Your task to perform on an android device: open app "Paramount+ | Peak Streaming" (install if not already installed) and enter user name: "fostered@yahoo.com" and password: "strong" Image 0: 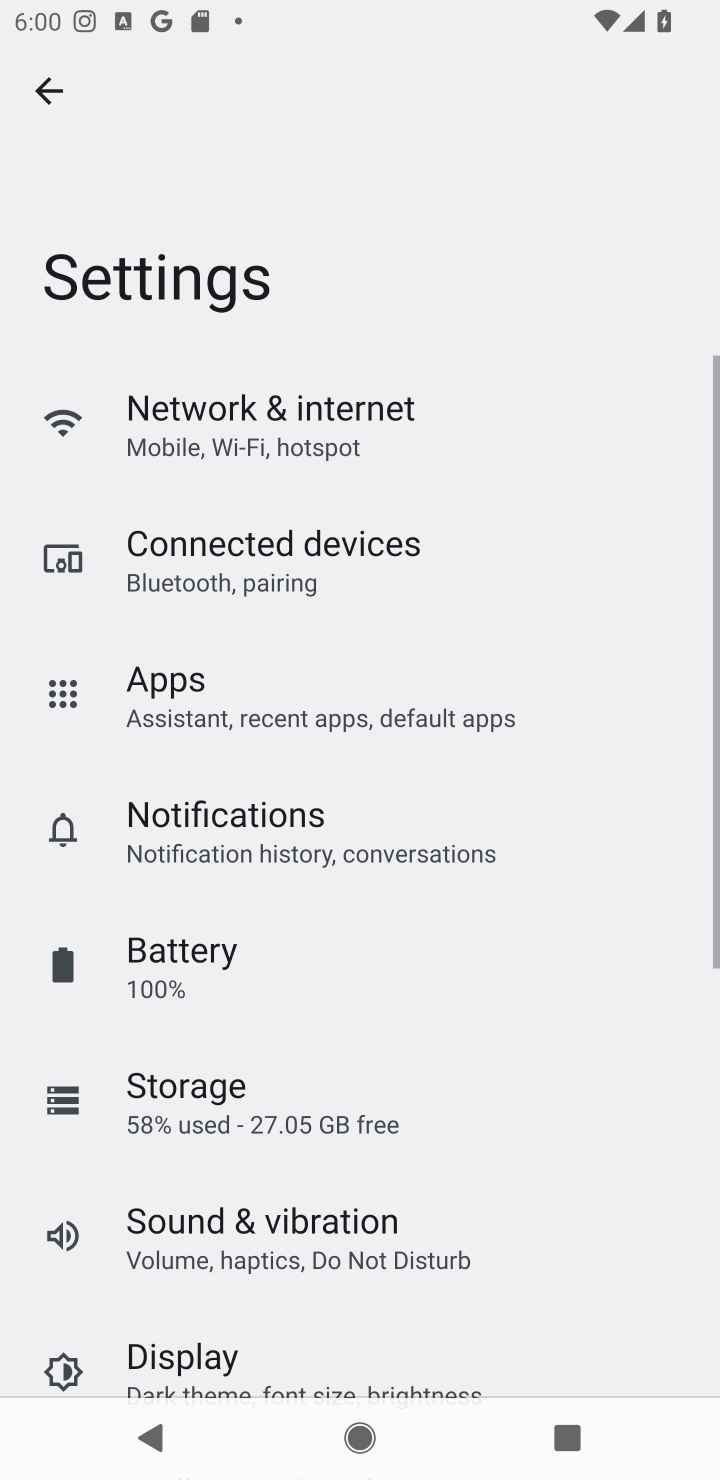
Step 0: press home button
Your task to perform on an android device: open app "Paramount+ | Peak Streaming" (install if not already installed) and enter user name: "fostered@yahoo.com" and password: "strong" Image 1: 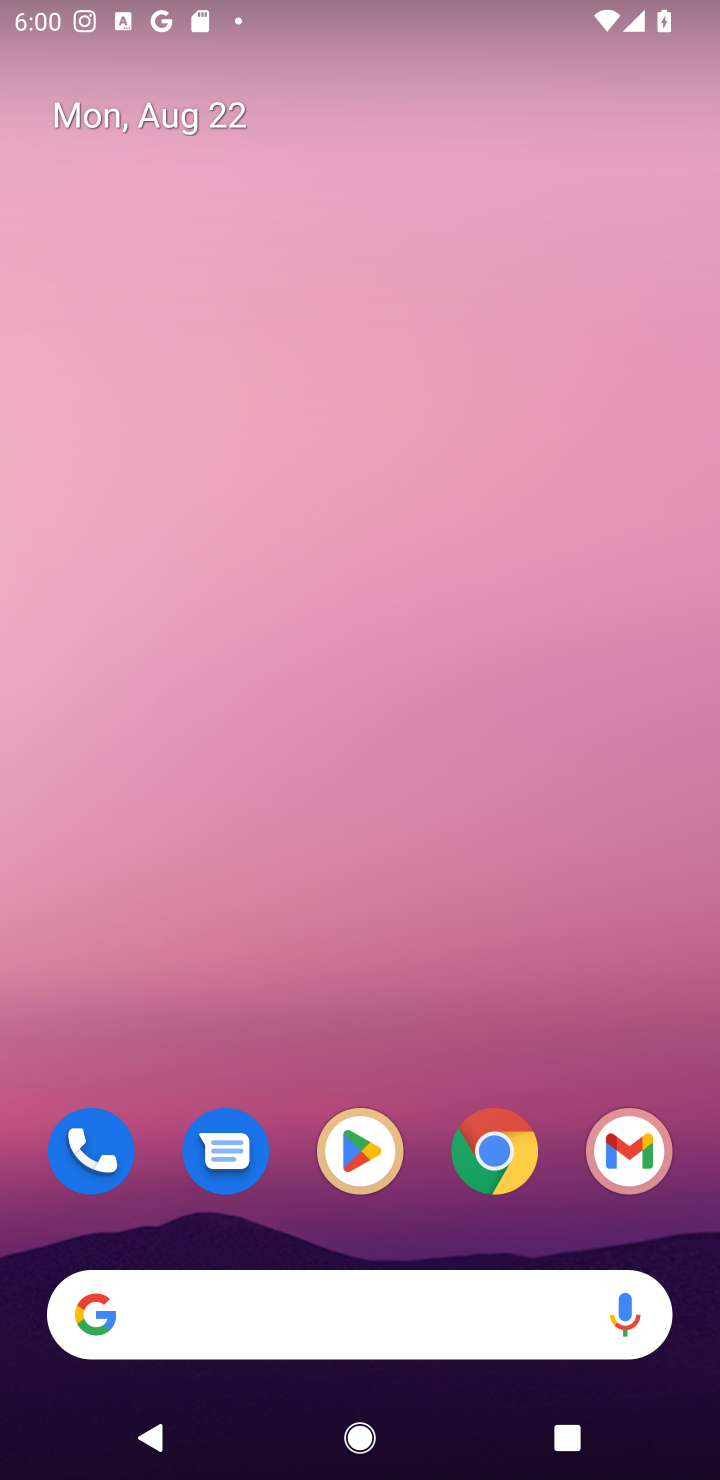
Step 1: click (366, 1154)
Your task to perform on an android device: open app "Paramount+ | Peak Streaming" (install if not already installed) and enter user name: "fostered@yahoo.com" and password: "strong" Image 2: 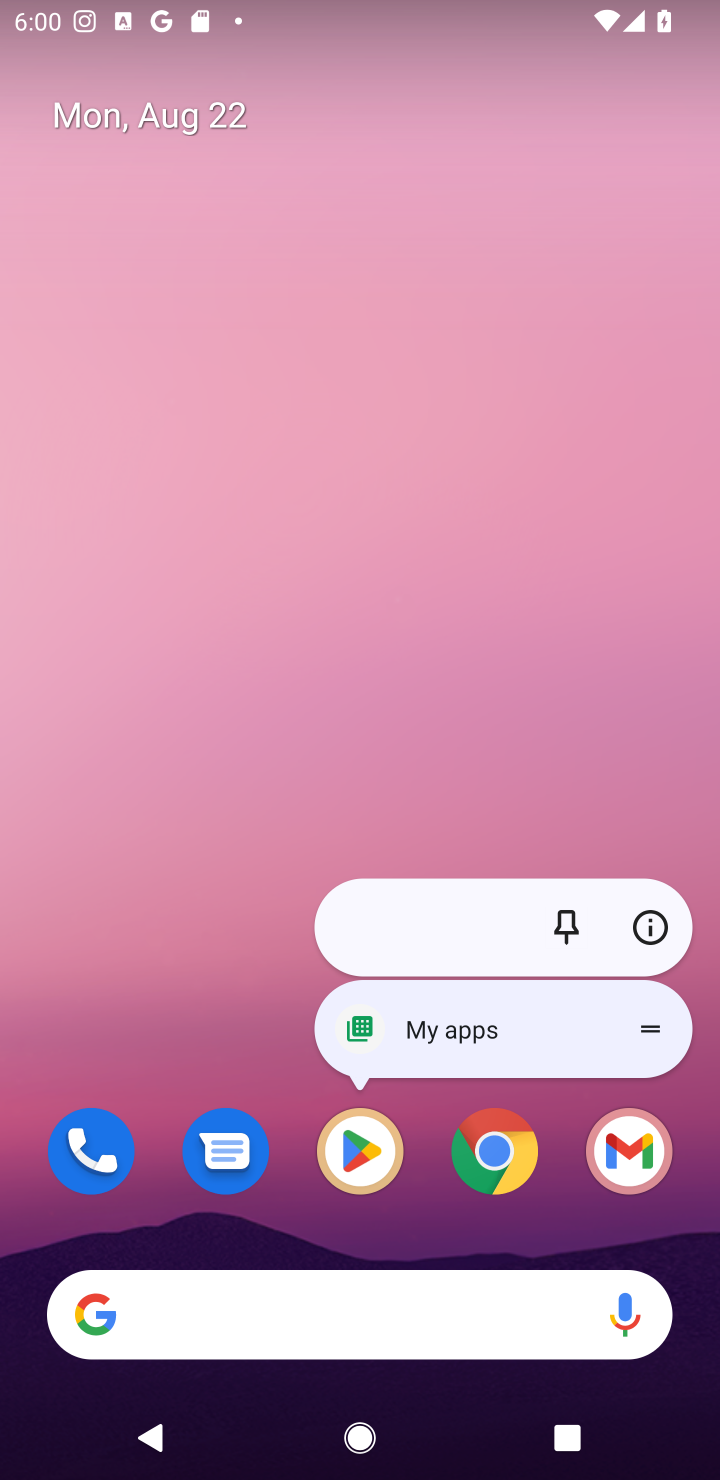
Step 2: click (368, 1156)
Your task to perform on an android device: open app "Paramount+ | Peak Streaming" (install if not already installed) and enter user name: "fostered@yahoo.com" and password: "strong" Image 3: 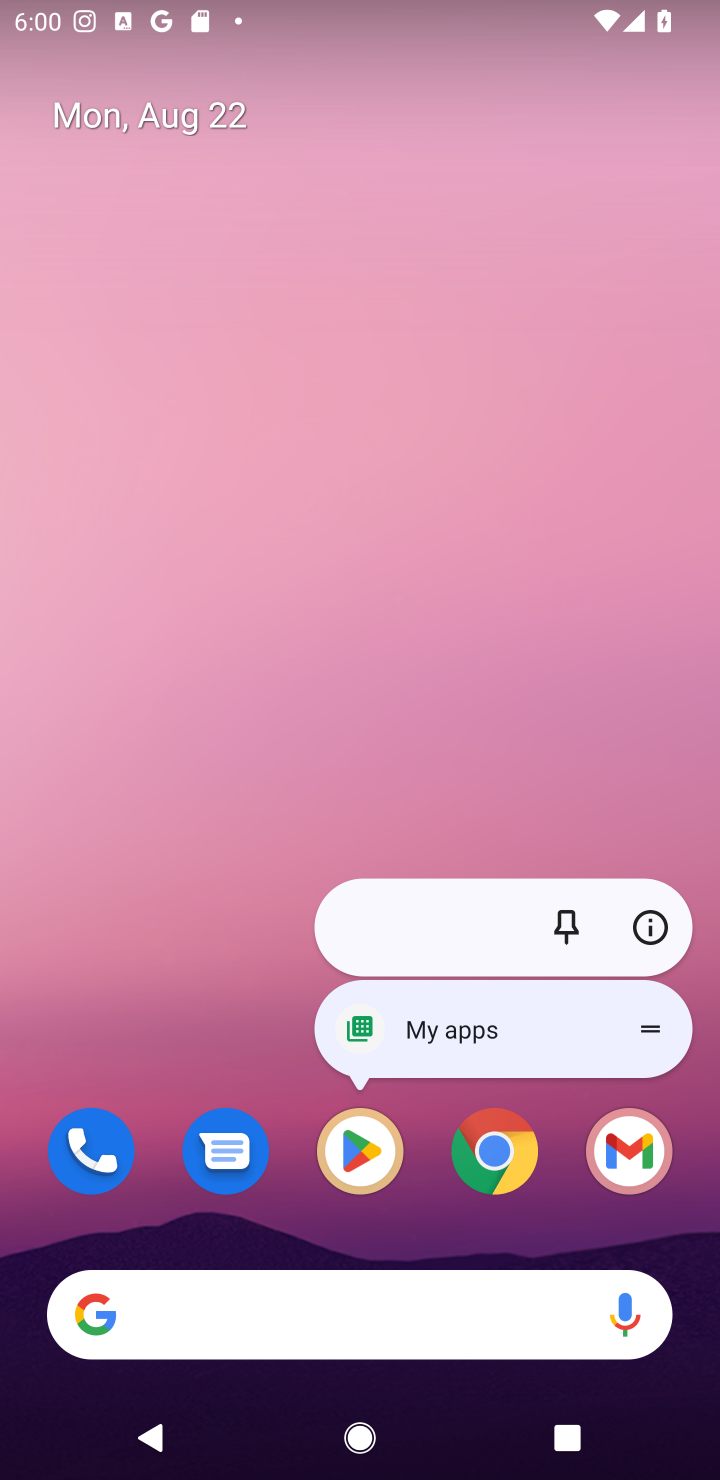
Step 3: click (368, 1156)
Your task to perform on an android device: open app "Paramount+ | Peak Streaming" (install if not already installed) and enter user name: "fostered@yahoo.com" and password: "strong" Image 4: 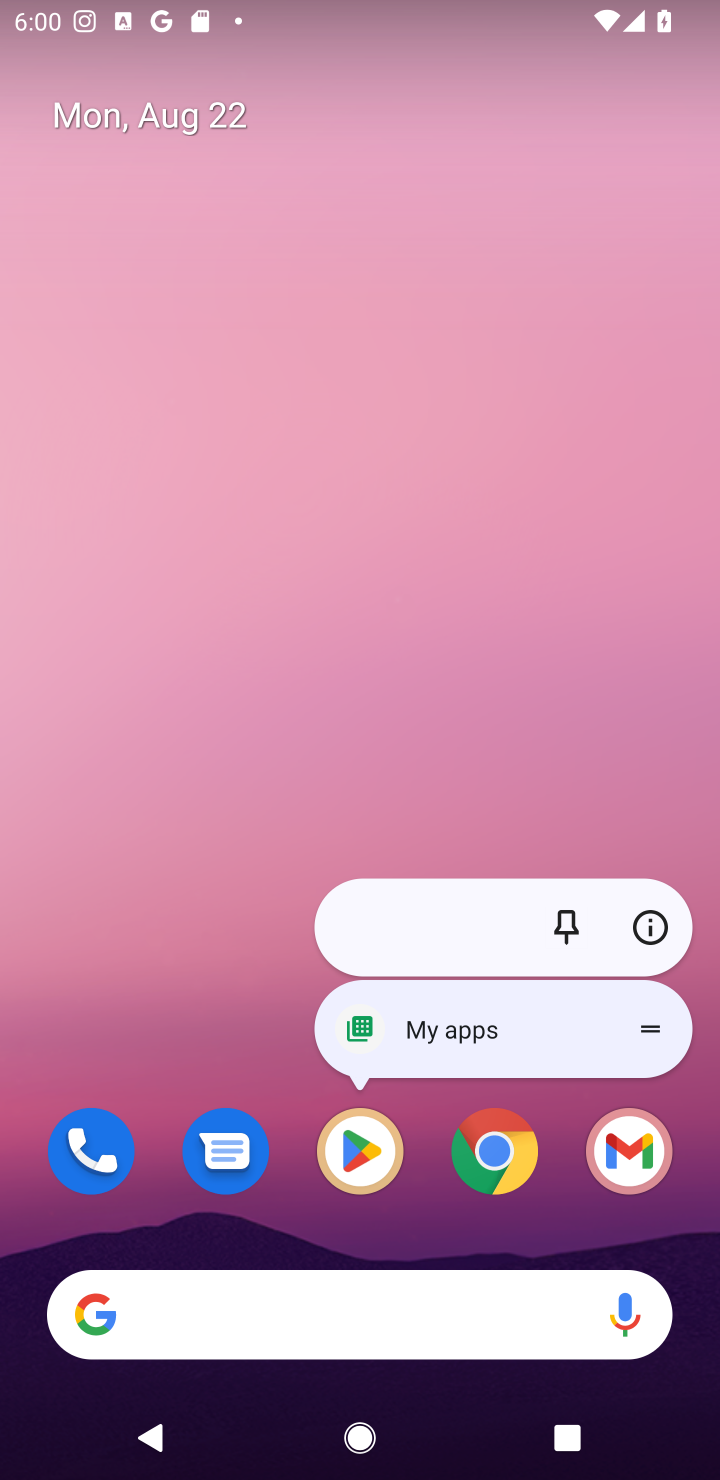
Step 4: click (356, 1156)
Your task to perform on an android device: open app "Paramount+ | Peak Streaming" (install if not already installed) and enter user name: "fostered@yahoo.com" and password: "strong" Image 5: 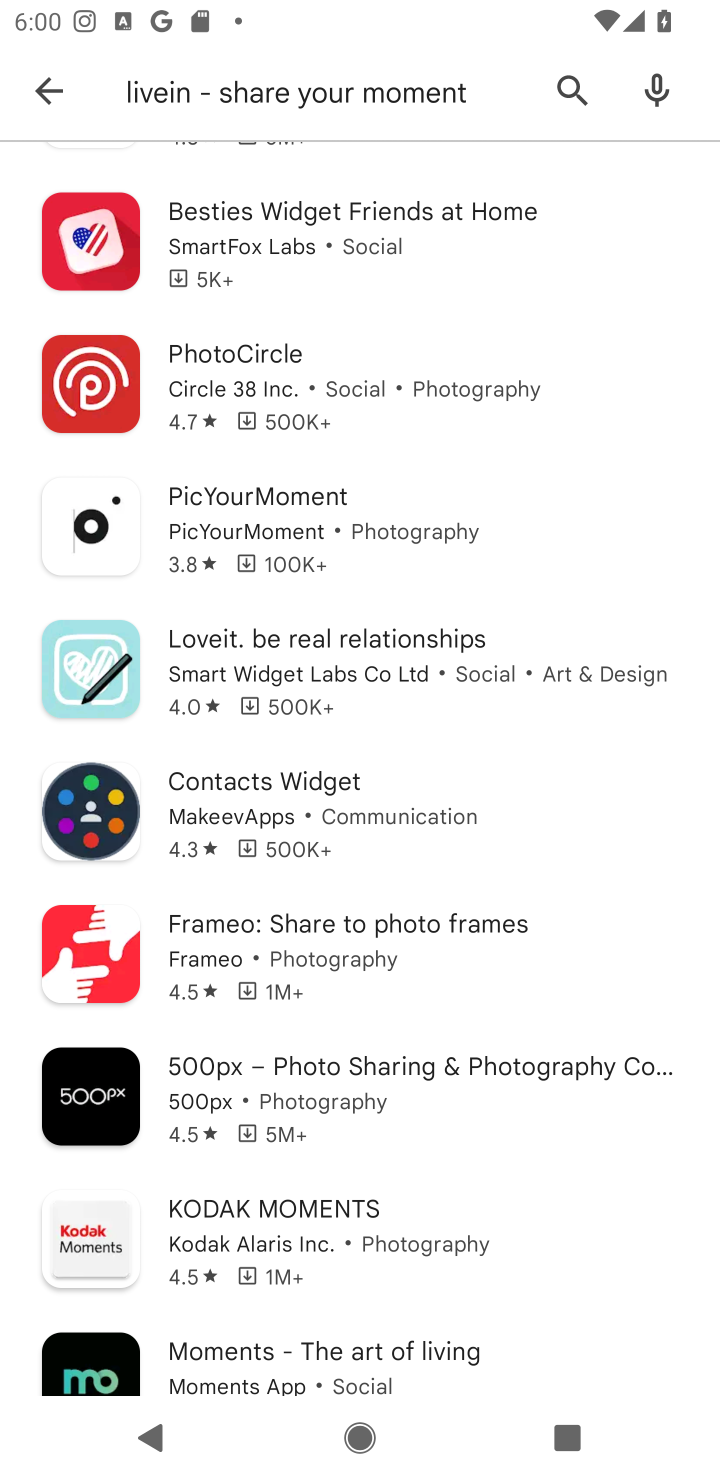
Step 5: click (574, 91)
Your task to perform on an android device: open app "Paramount+ | Peak Streaming" (install if not already installed) and enter user name: "fostered@yahoo.com" and password: "strong" Image 6: 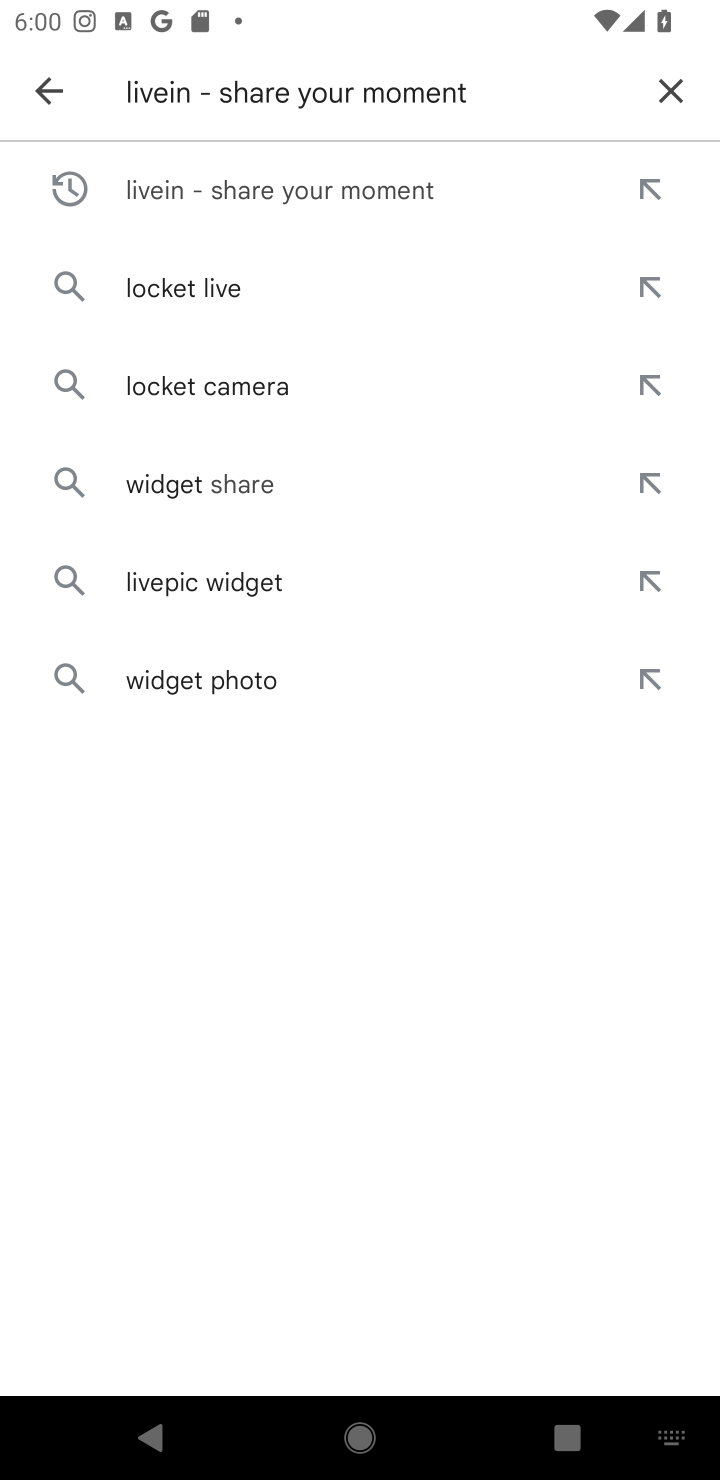
Step 6: click (655, 91)
Your task to perform on an android device: open app "Paramount+ | Peak Streaming" (install if not already installed) and enter user name: "fostered@yahoo.com" and password: "strong" Image 7: 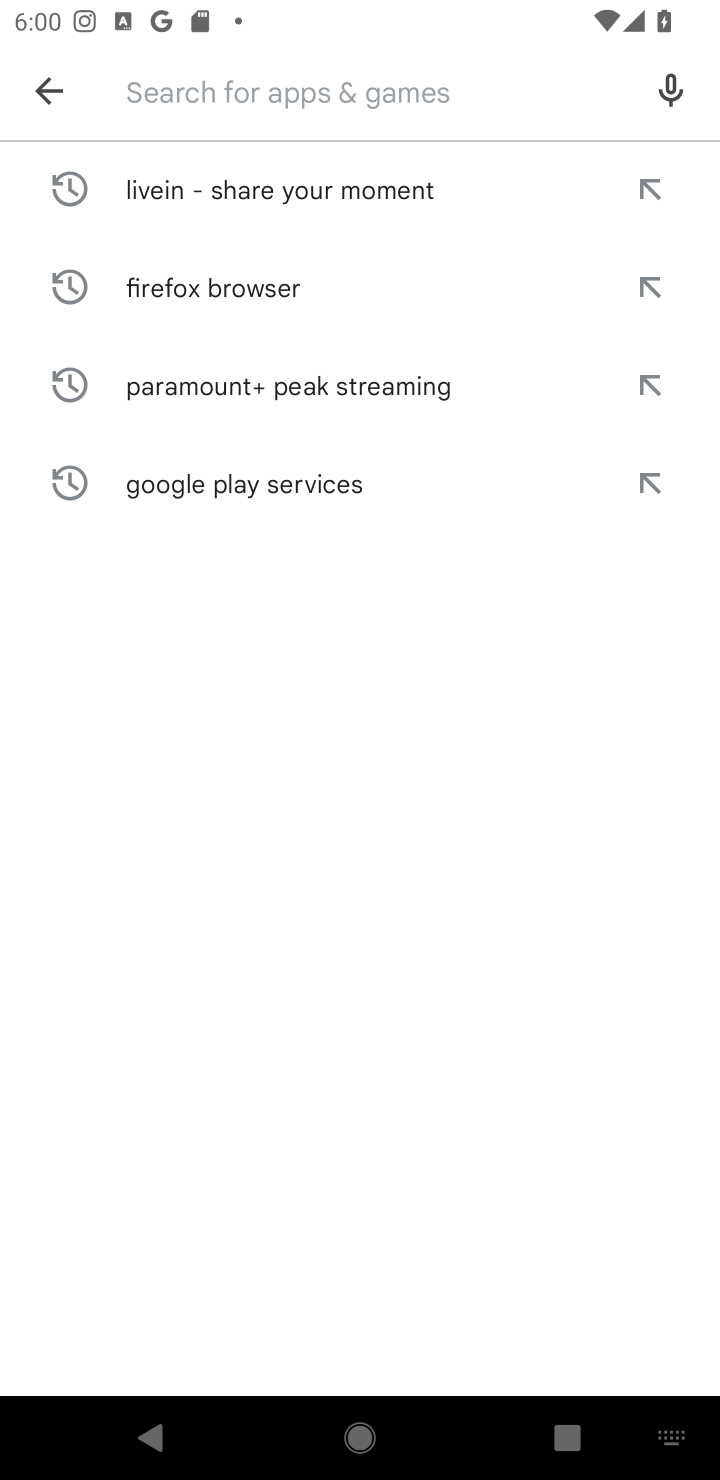
Step 7: type "Paramount+ | Peak Streaming"
Your task to perform on an android device: open app "Paramount+ | Peak Streaming" (install if not already installed) and enter user name: "fostered@yahoo.com" and password: "strong" Image 8: 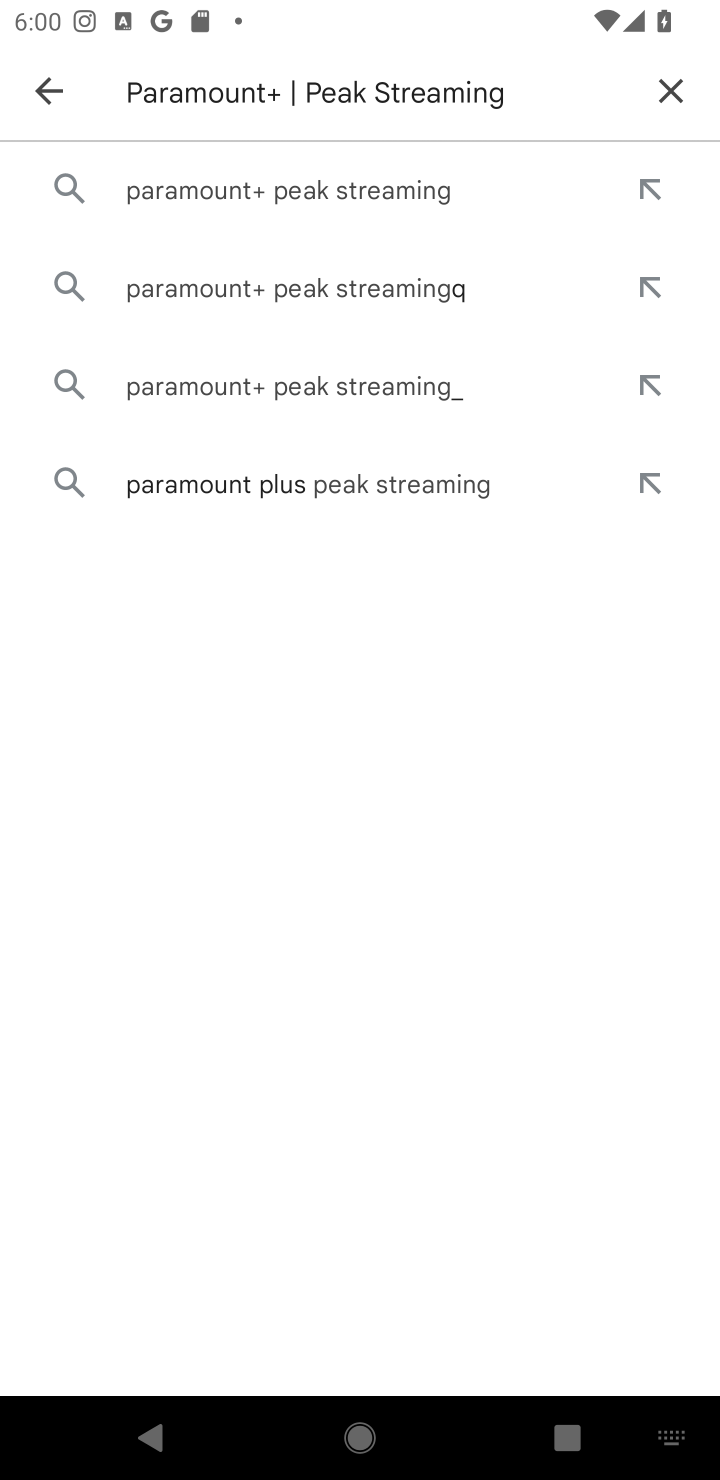
Step 8: click (334, 185)
Your task to perform on an android device: open app "Paramount+ | Peak Streaming" (install if not already installed) and enter user name: "fostered@yahoo.com" and password: "strong" Image 9: 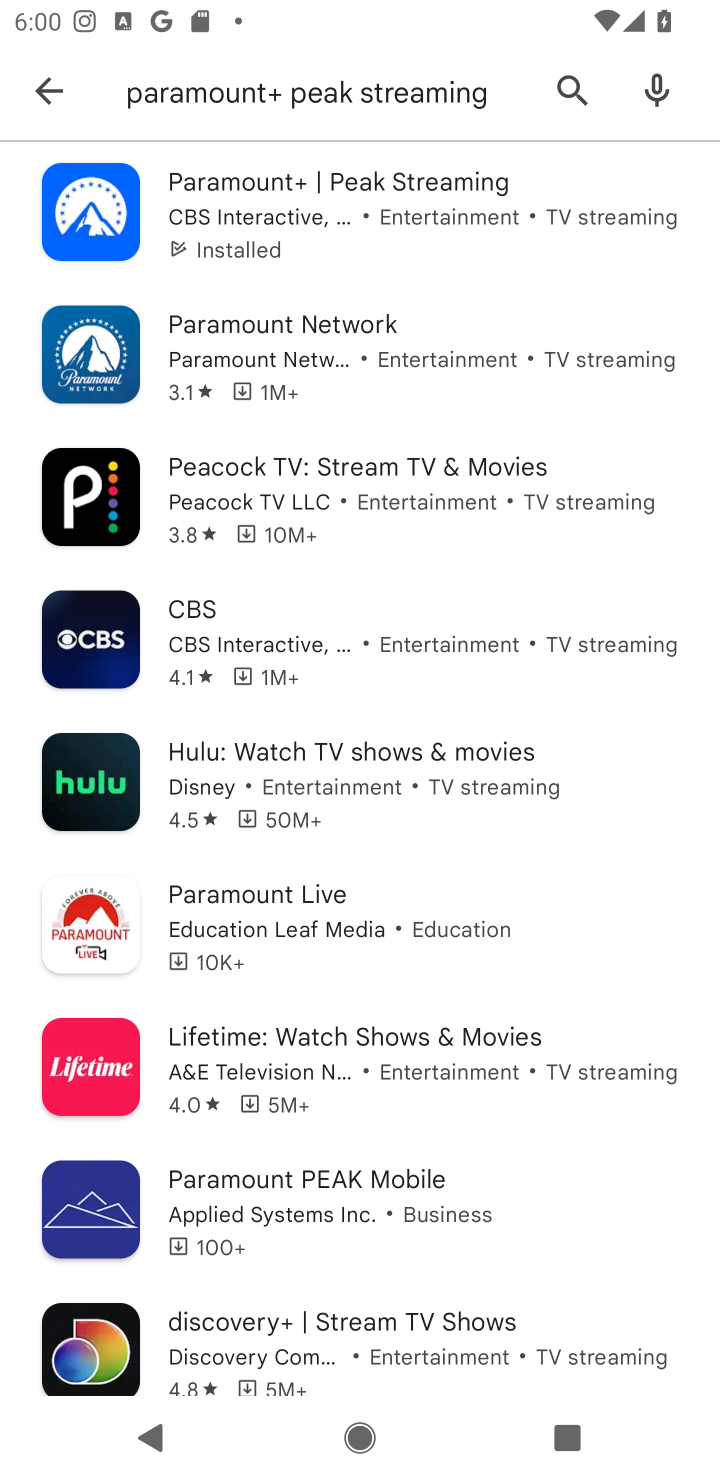
Step 9: click (320, 209)
Your task to perform on an android device: open app "Paramount+ | Peak Streaming" (install if not already installed) and enter user name: "fostered@yahoo.com" and password: "strong" Image 10: 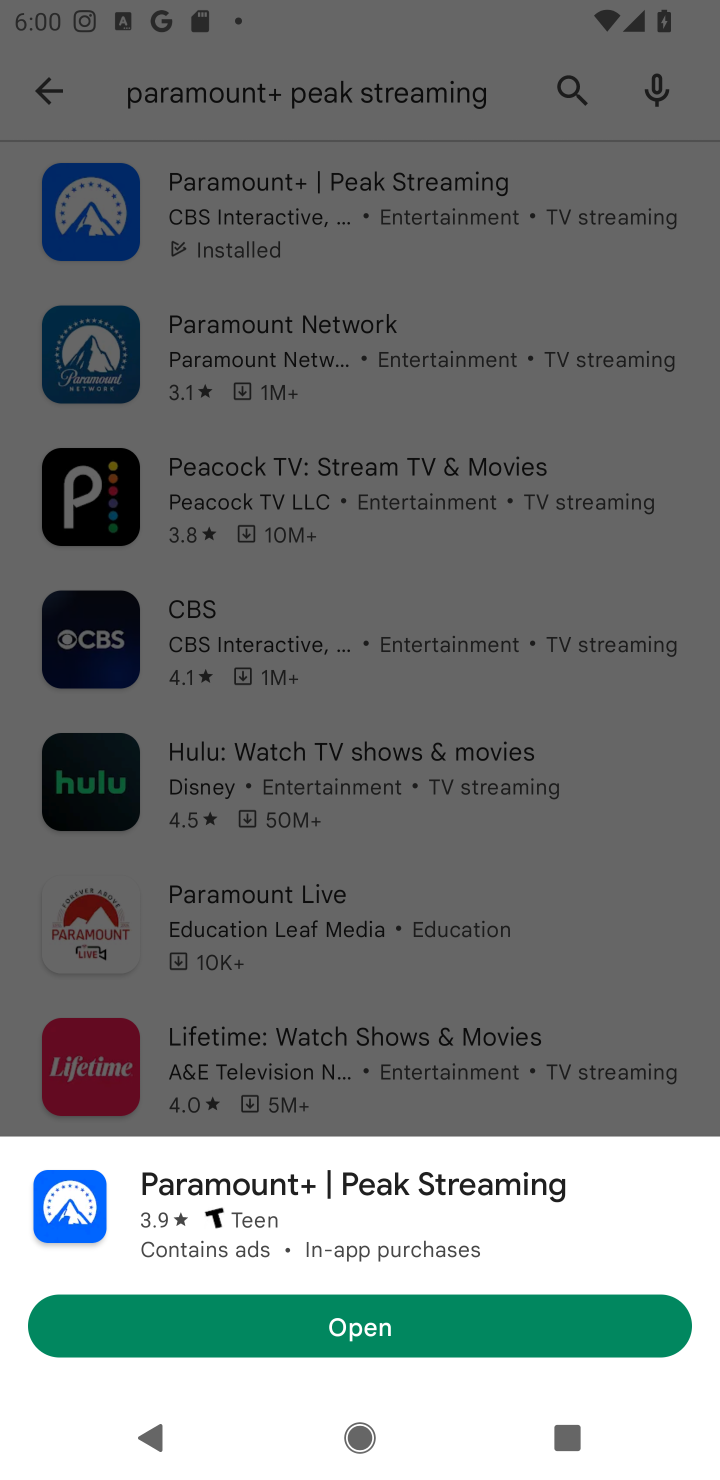
Step 10: click (387, 1332)
Your task to perform on an android device: open app "Paramount+ | Peak Streaming" (install if not already installed) and enter user name: "fostered@yahoo.com" and password: "strong" Image 11: 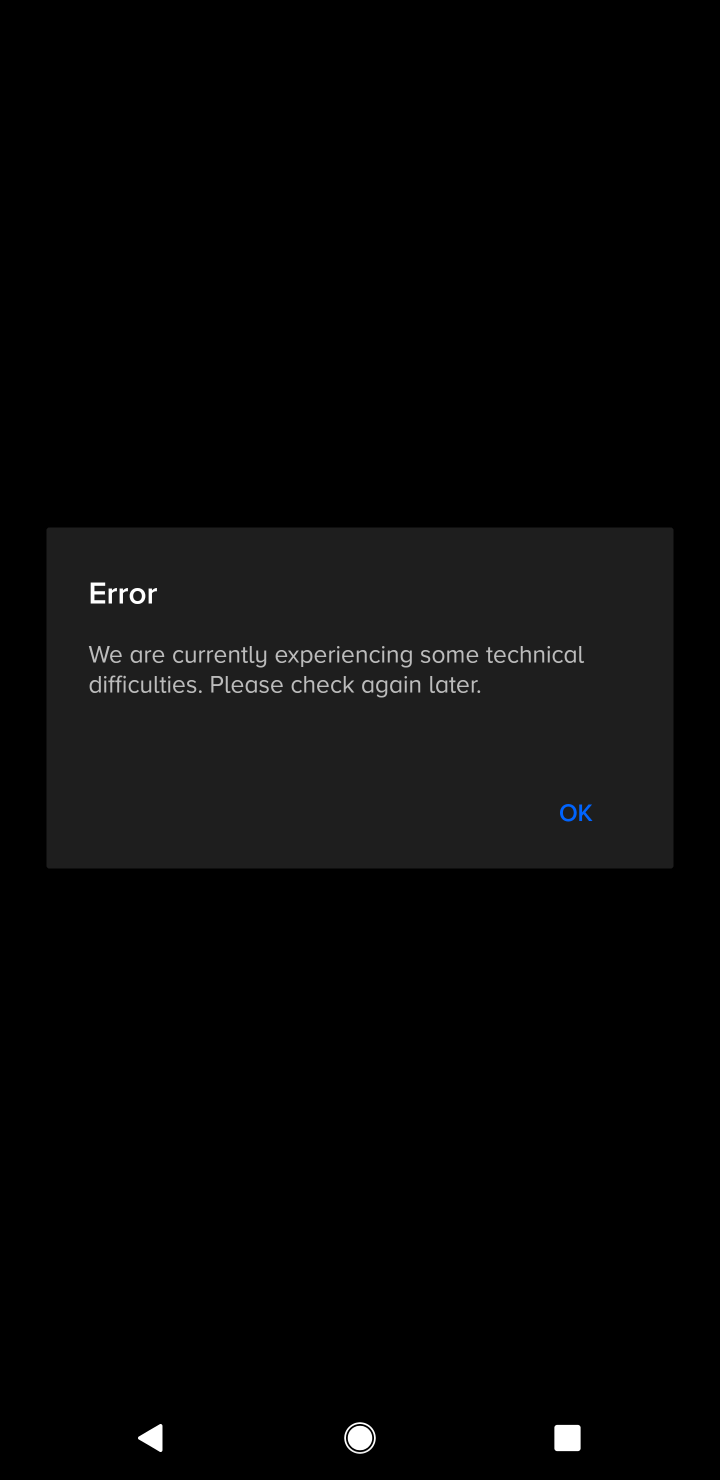
Step 11: task complete